Your task to perform on an android device: Open internet settings Image 0: 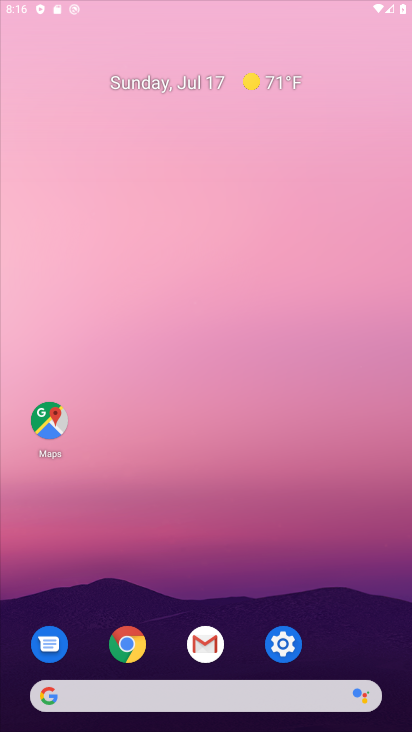
Step 0: click (223, 692)
Your task to perform on an android device: Open internet settings Image 1: 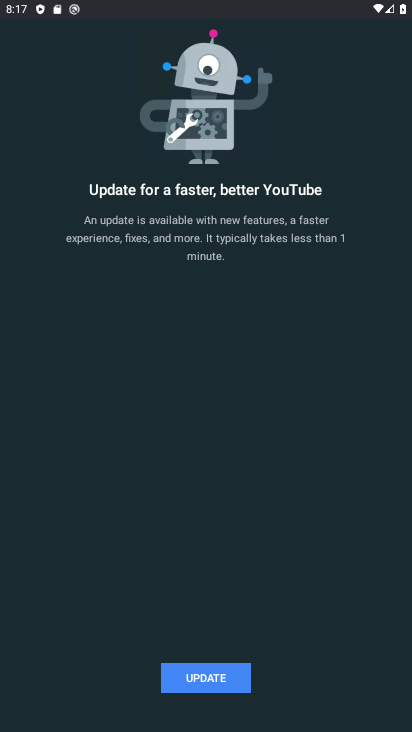
Step 1: press home button
Your task to perform on an android device: Open internet settings Image 2: 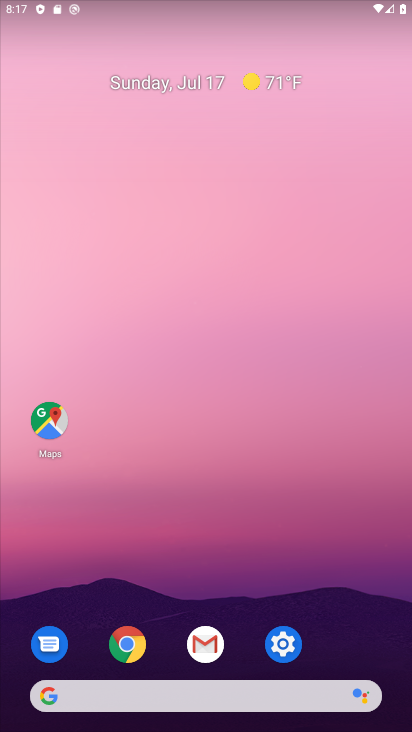
Step 2: click (291, 646)
Your task to perform on an android device: Open internet settings Image 3: 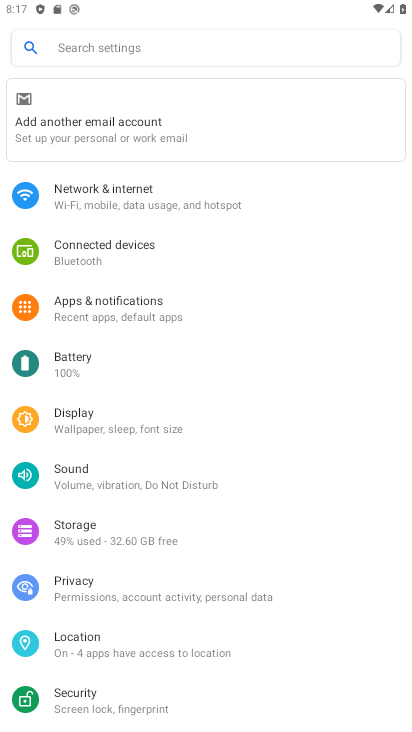
Step 3: click (169, 192)
Your task to perform on an android device: Open internet settings Image 4: 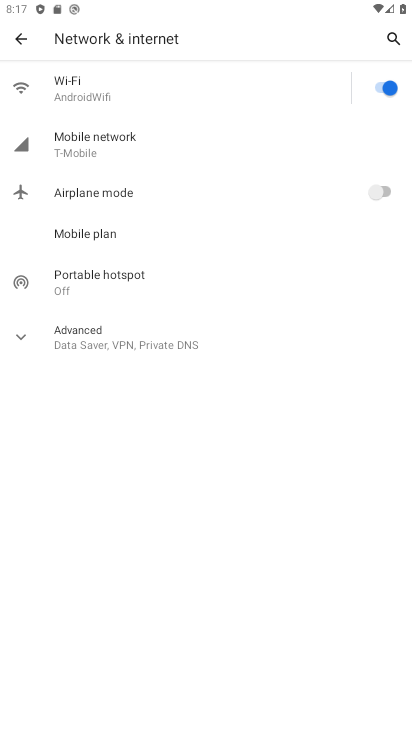
Step 4: task complete